Your task to perform on an android device: Open battery settings Image 0: 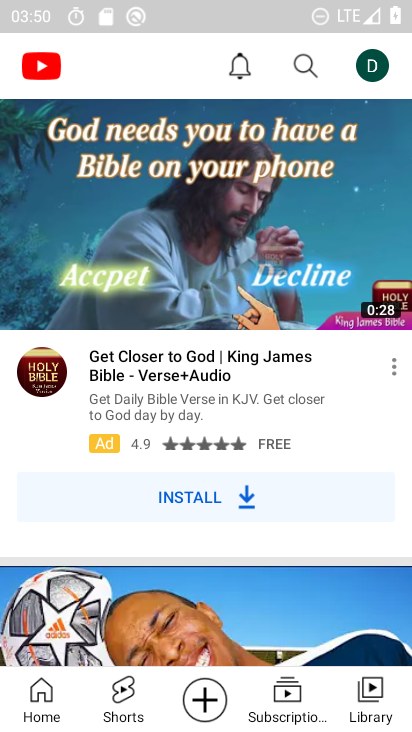
Step 0: press home button
Your task to perform on an android device: Open battery settings Image 1: 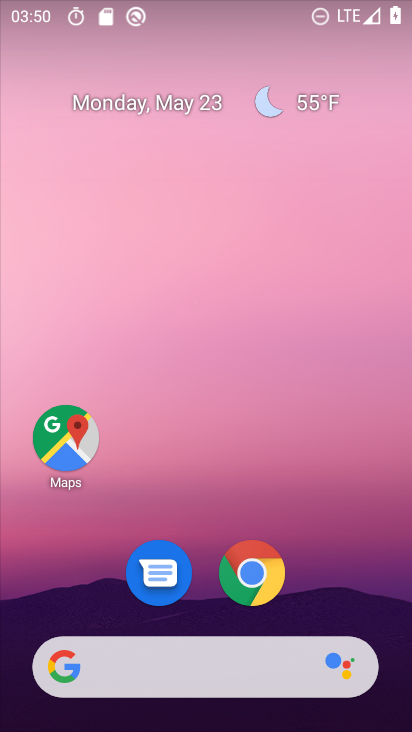
Step 1: drag from (307, 575) to (278, 232)
Your task to perform on an android device: Open battery settings Image 2: 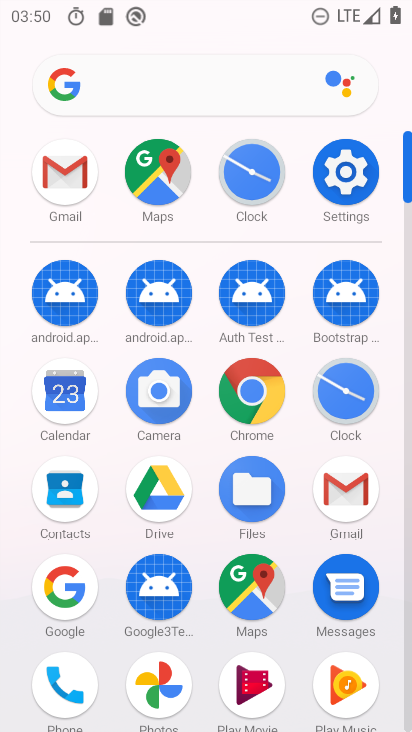
Step 2: click (352, 166)
Your task to perform on an android device: Open battery settings Image 3: 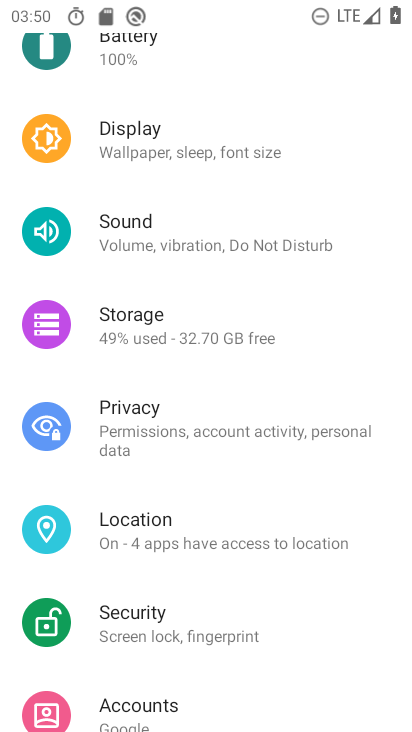
Step 3: click (147, 47)
Your task to perform on an android device: Open battery settings Image 4: 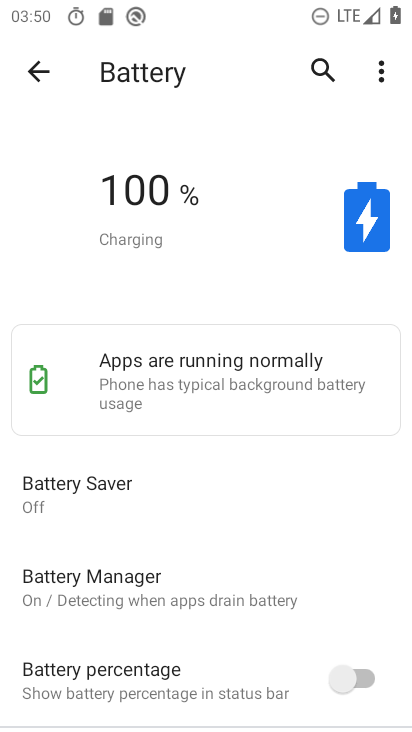
Step 4: task complete